Your task to perform on an android device: Go to CNN.com Image 0: 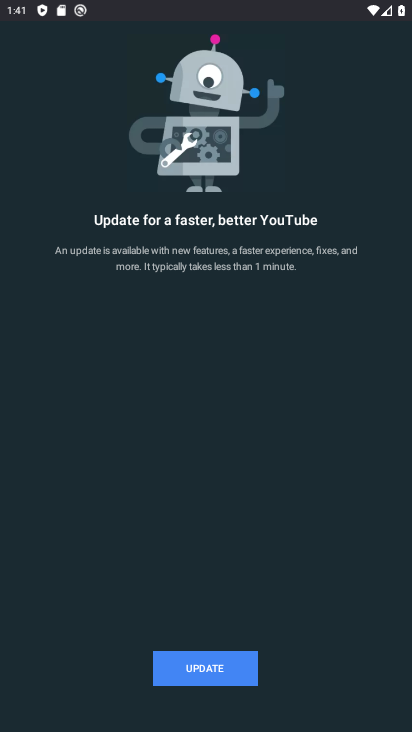
Step 0: press home button
Your task to perform on an android device: Go to CNN.com Image 1: 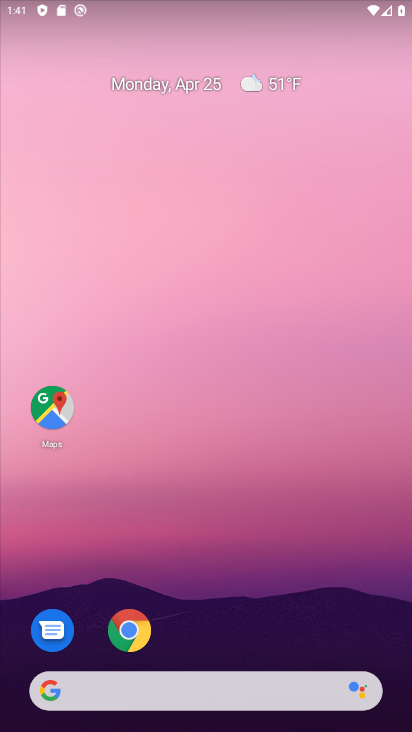
Step 1: drag from (298, 579) to (242, 45)
Your task to perform on an android device: Go to CNN.com Image 2: 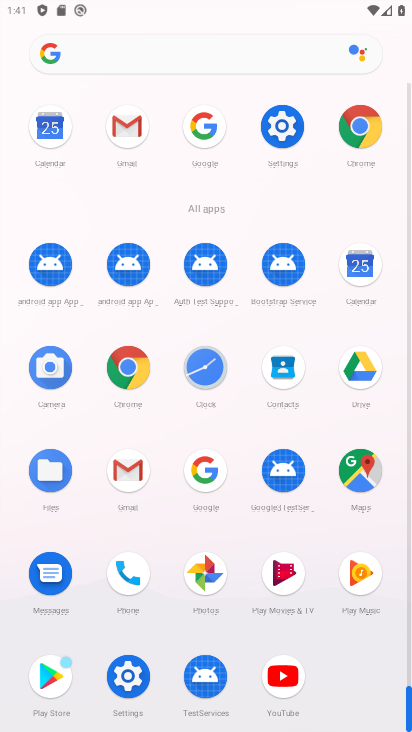
Step 2: click (358, 123)
Your task to perform on an android device: Go to CNN.com Image 3: 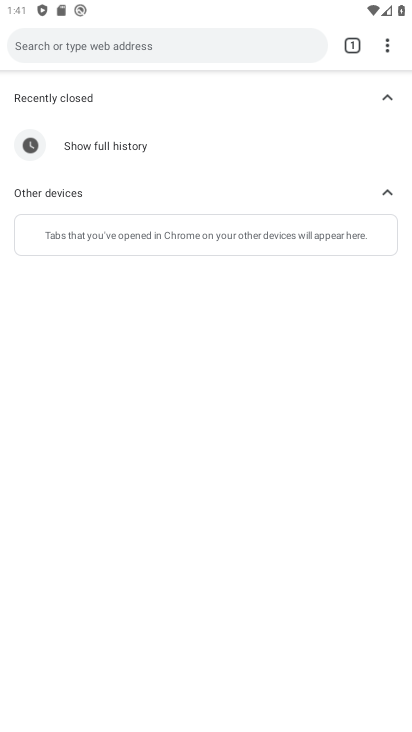
Step 3: click (207, 44)
Your task to perform on an android device: Go to CNN.com Image 4: 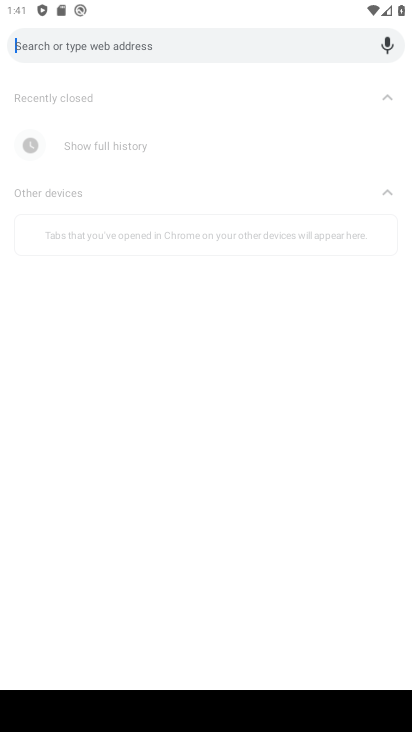
Step 4: type "cnn.com"
Your task to perform on an android device: Go to CNN.com Image 5: 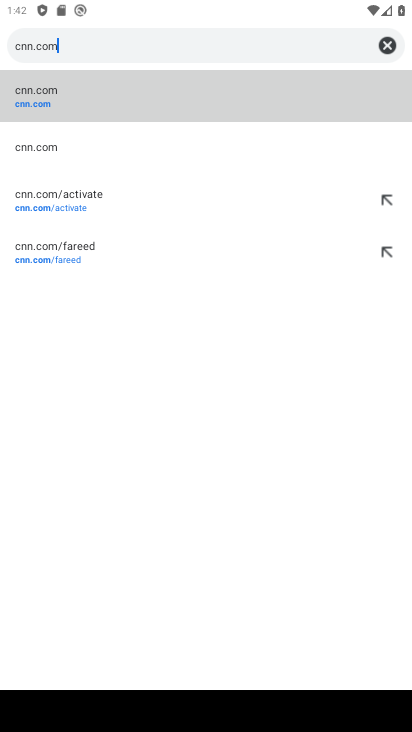
Step 5: click (15, 100)
Your task to perform on an android device: Go to CNN.com Image 6: 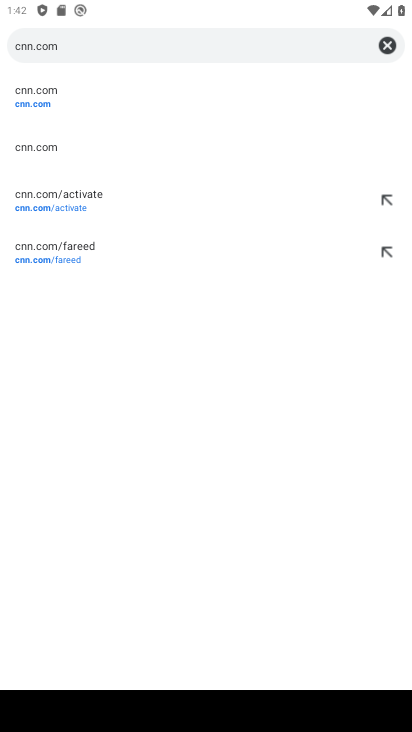
Step 6: click (30, 111)
Your task to perform on an android device: Go to CNN.com Image 7: 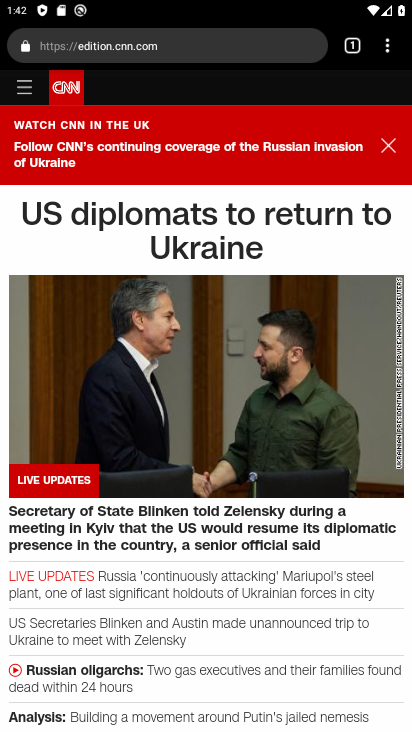
Step 7: task complete